Your task to perform on an android device: remove spam from my inbox in the gmail app Image 0: 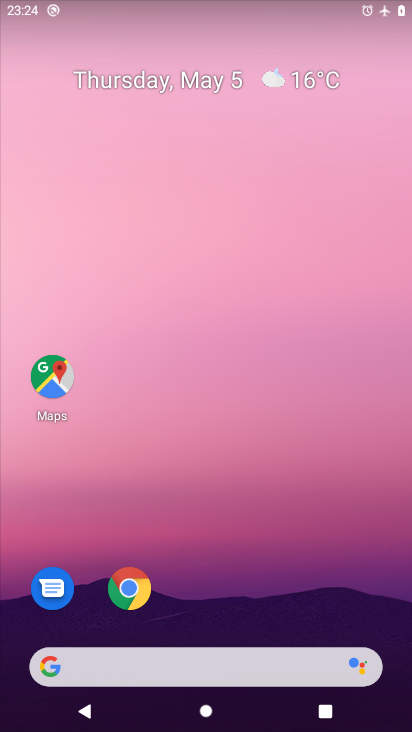
Step 0: drag from (258, 611) to (213, 44)
Your task to perform on an android device: remove spam from my inbox in the gmail app Image 1: 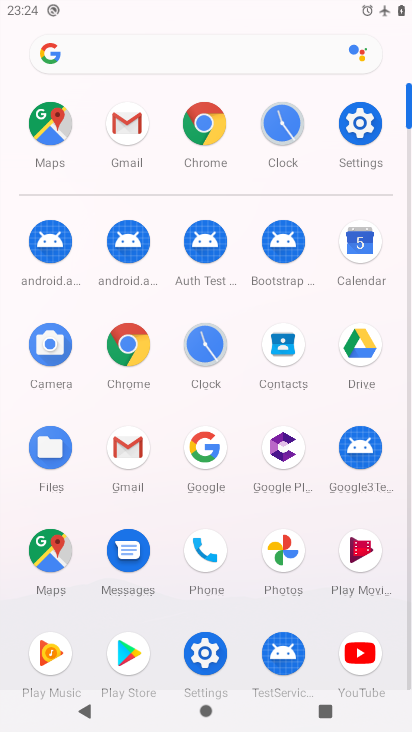
Step 1: click (134, 137)
Your task to perform on an android device: remove spam from my inbox in the gmail app Image 2: 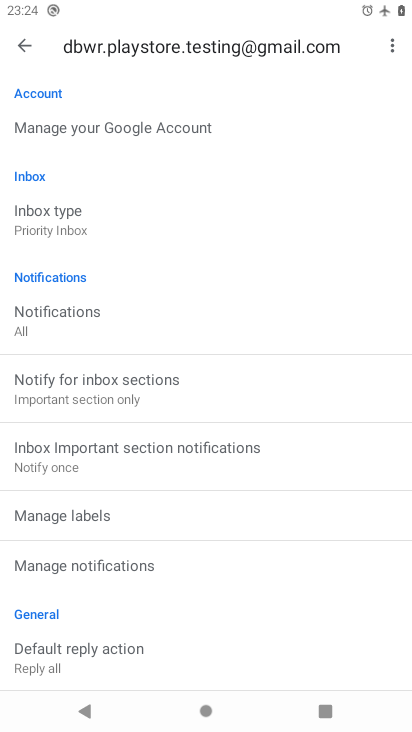
Step 2: click (32, 45)
Your task to perform on an android device: remove spam from my inbox in the gmail app Image 3: 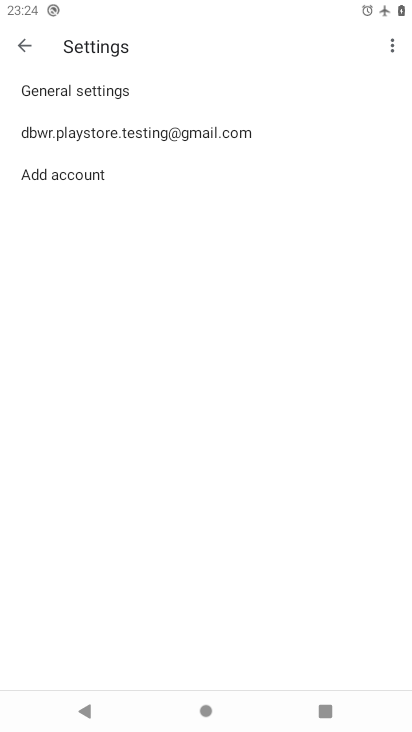
Step 3: click (32, 45)
Your task to perform on an android device: remove spam from my inbox in the gmail app Image 4: 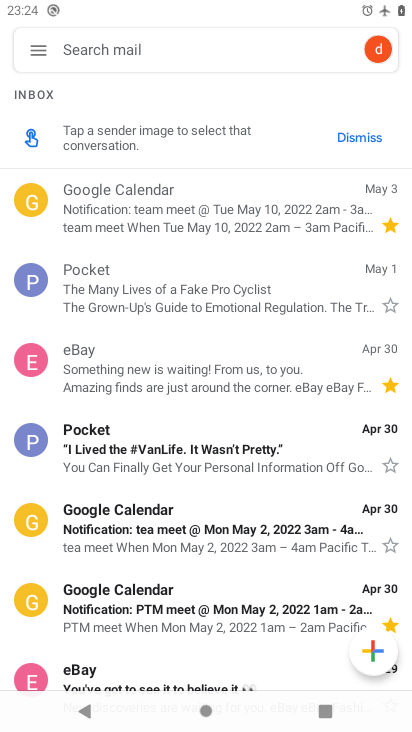
Step 4: click (43, 47)
Your task to perform on an android device: remove spam from my inbox in the gmail app Image 5: 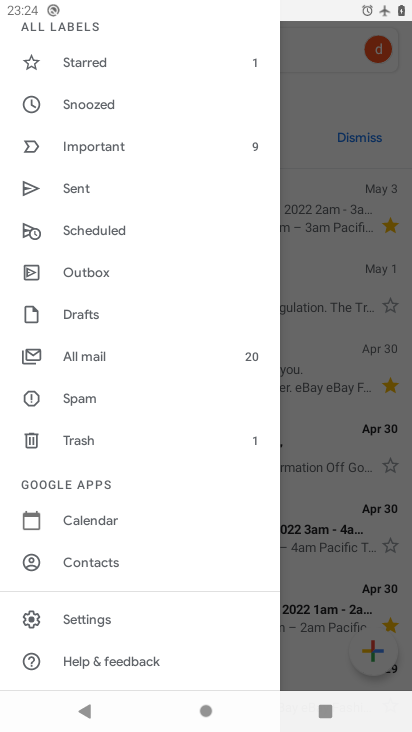
Step 5: click (86, 398)
Your task to perform on an android device: remove spam from my inbox in the gmail app Image 6: 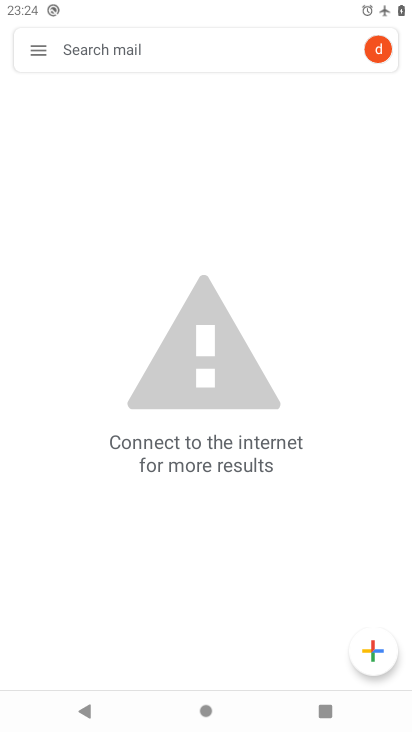
Step 6: task complete